Your task to perform on an android device: Search for Mexican restaurants on Maps Image 0: 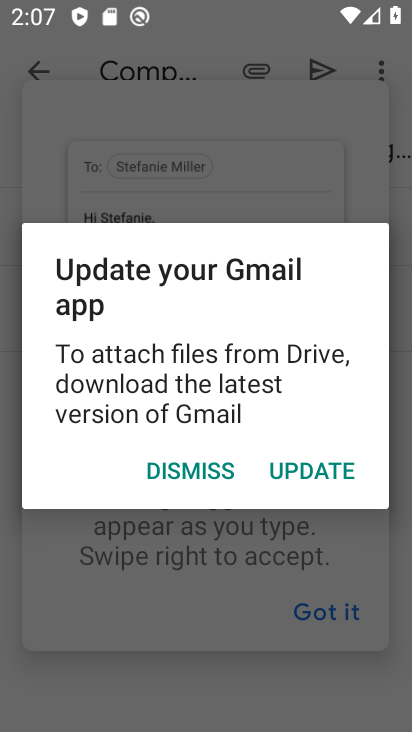
Step 0: press home button
Your task to perform on an android device: Search for Mexican restaurants on Maps Image 1: 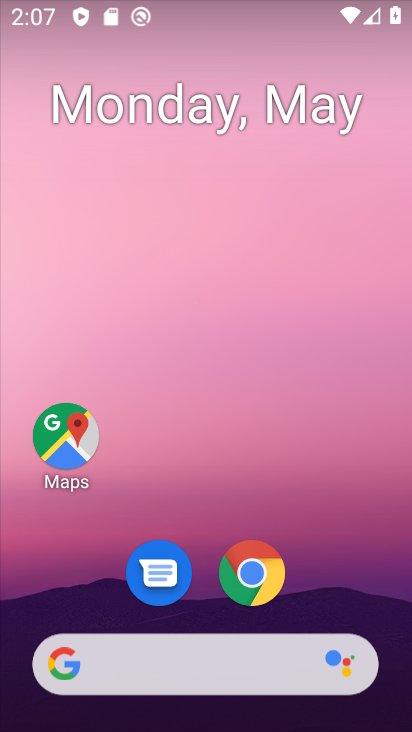
Step 1: click (67, 428)
Your task to perform on an android device: Search for Mexican restaurants on Maps Image 2: 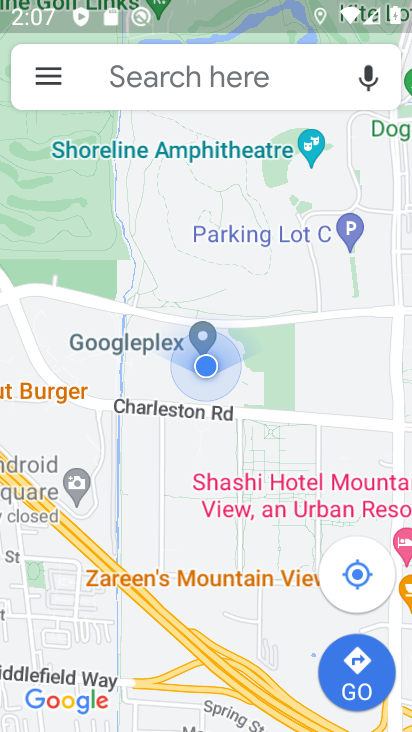
Step 2: click (240, 90)
Your task to perform on an android device: Search for Mexican restaurants on Maps Image 3: 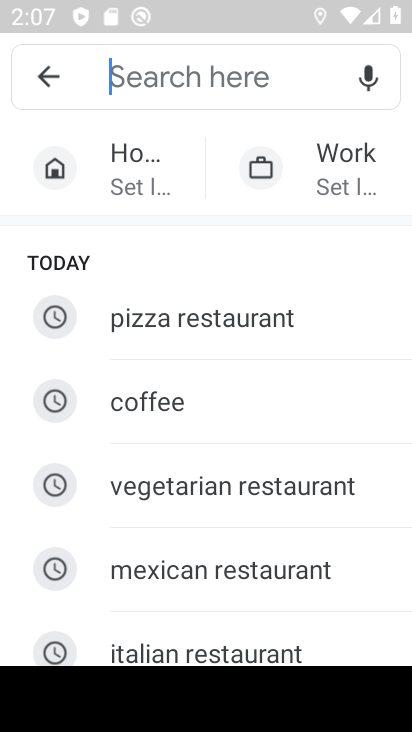
Step 3: type "mexican restaurants"
Your task to perform on an android device: Search for Mexican restaurants on Maps Image 4: 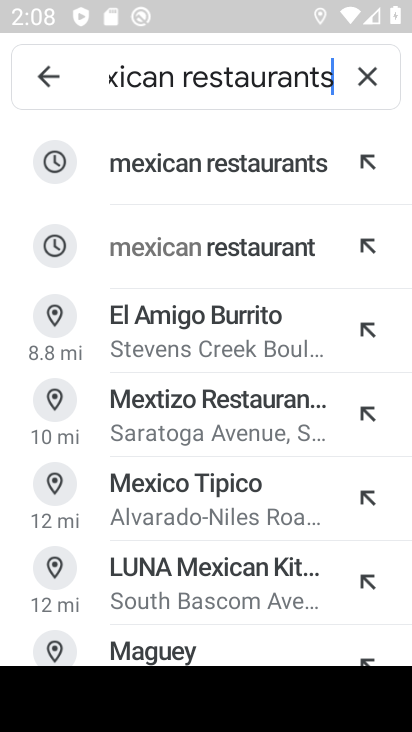
Step 4: click (206, 166)
Your task to perform on an android device: Search for Mexican restaurants on Maps Image 5: 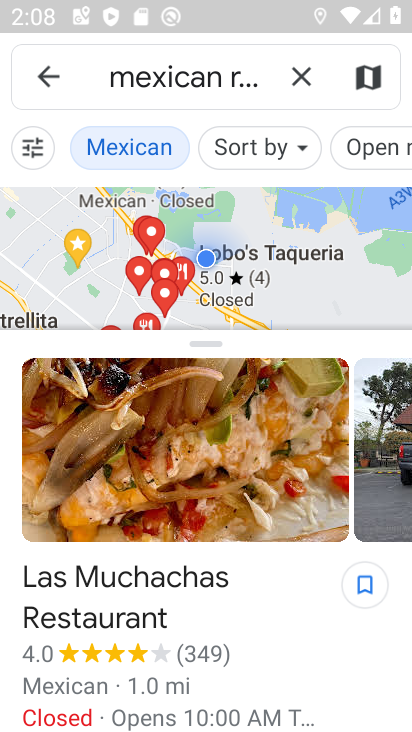
Step 5: task complete